Your task to perform on an android device: Show me recent news Image 0: 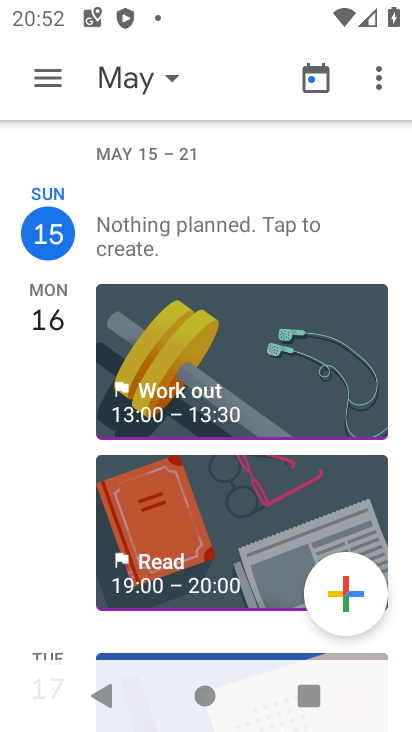
Step 0: press home button
Your task to perform on an android device: Show me recent news Image 1: 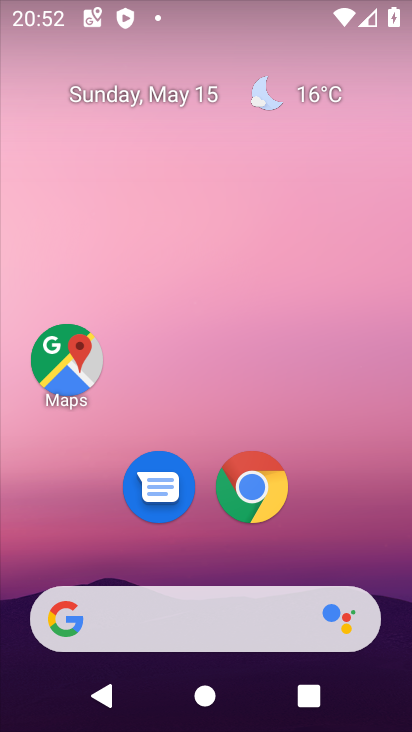
Step 1: drag from (180, 266) to (333, 290)
Your task to perform on an android device: Show me recent news Image 2: 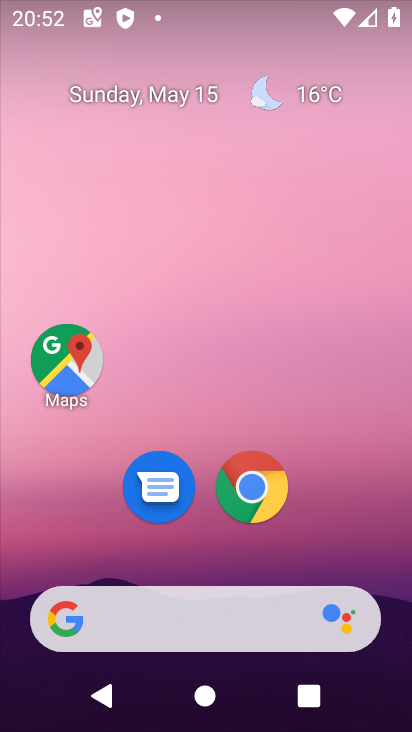
Step 2: drag from (24, 156) to (244, 191)
Your task to perform on an android device: Show me recent news Image 3: 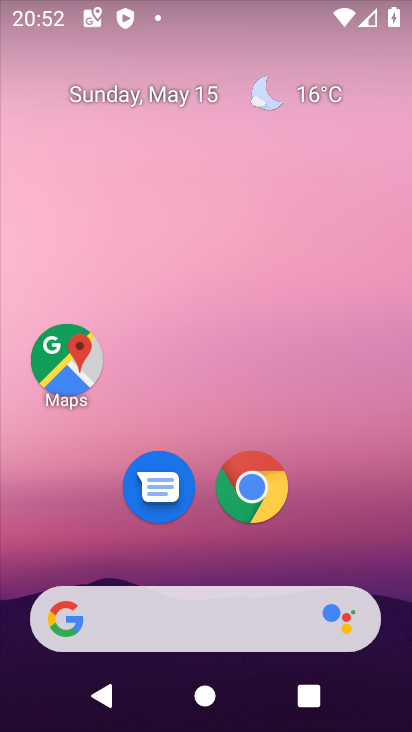
Step 3: drag from (401, 689) to (326, 132)
Your task to perform on an android device: Show me recent news Image 4: 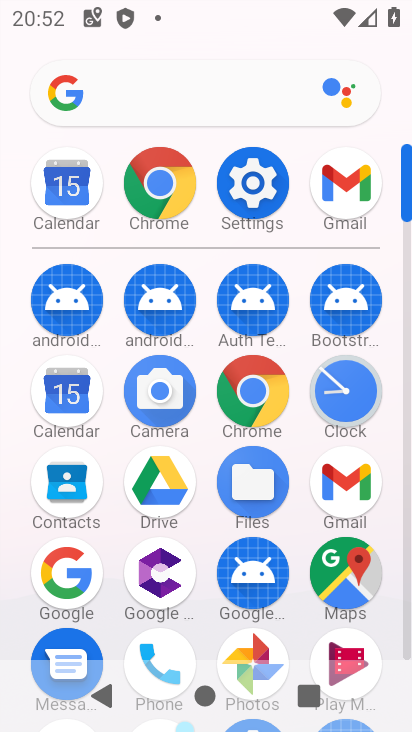
Step 4: click (88, 565)
Your task to perform on an android device: Show me recent news Image 5: 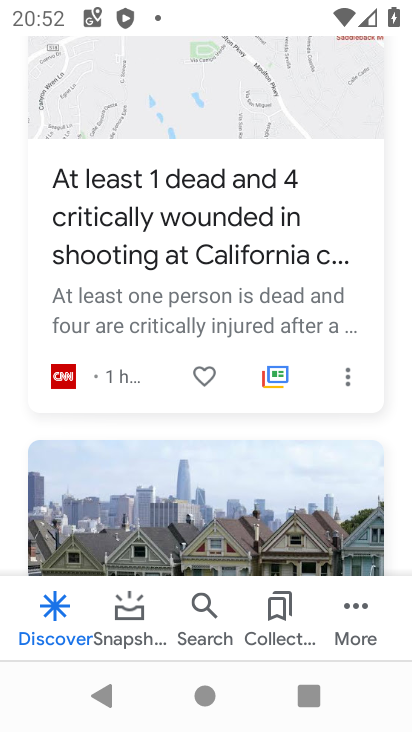
Step 5: task complete